Your task to perform on an android device: Open a new tab in Chrome Image 0: 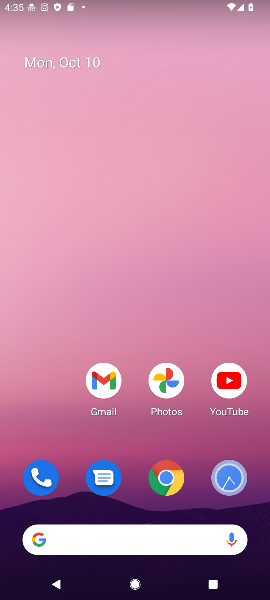
Step 0: click (157, 477)
Your task to perform on an android device: Open a new tab in Chrome Image 1: 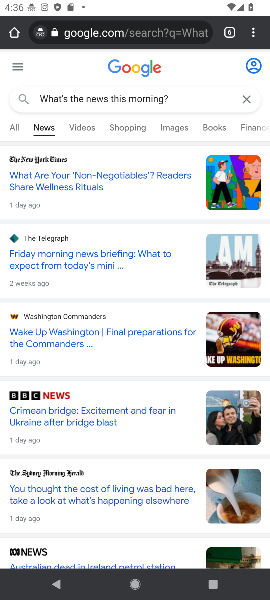
Step 1: click (227, 37)
Your task to perform on an android device: Open a new tab in Chrome Image 2: 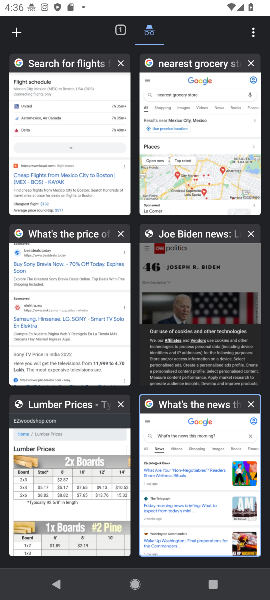
Step 2: click (114, 36)
Your task to perform on an android device: Open a new tab in Chrome Image 3: 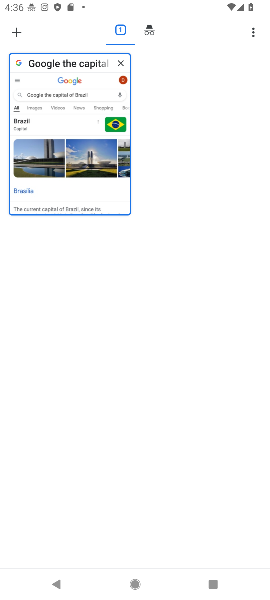
Step 3: click (22, 32)
Your task to perform on an android device: Open a new tab in Chrome Image 4: 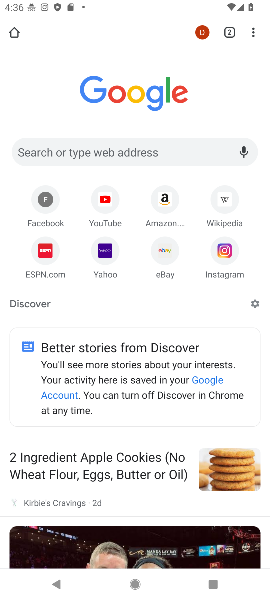
Step 4: task complete